Your task to perform on an android device: Open internet settings Image 0: 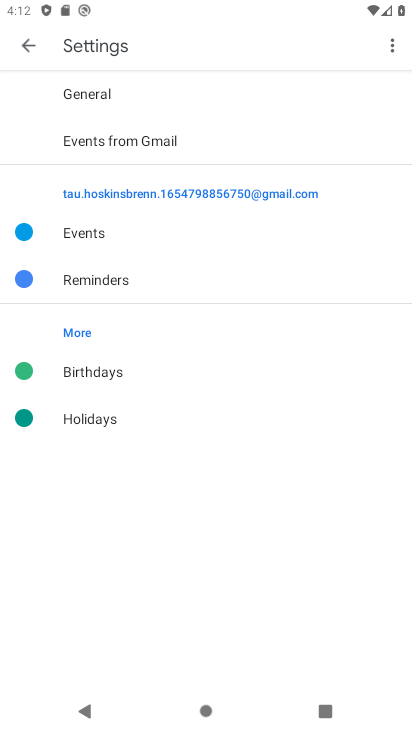
Step 0: drag from (249, 629) to (270, 160)
Your task to perform on an android device: Open internet settings Image 1: 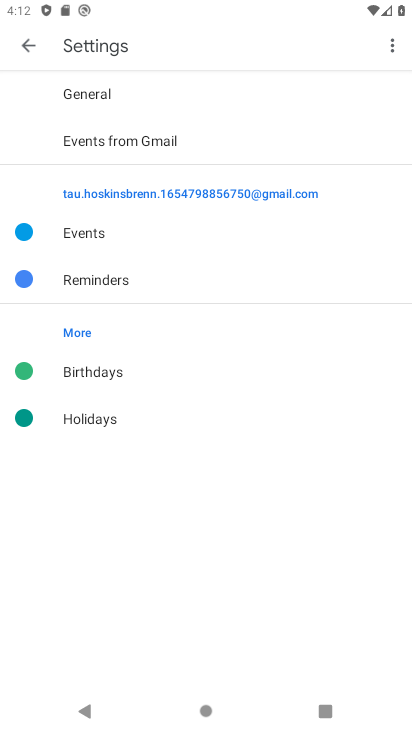
Step 1: click (18, 59)
Your task to perform on an android device: Open internet settings Image 2: 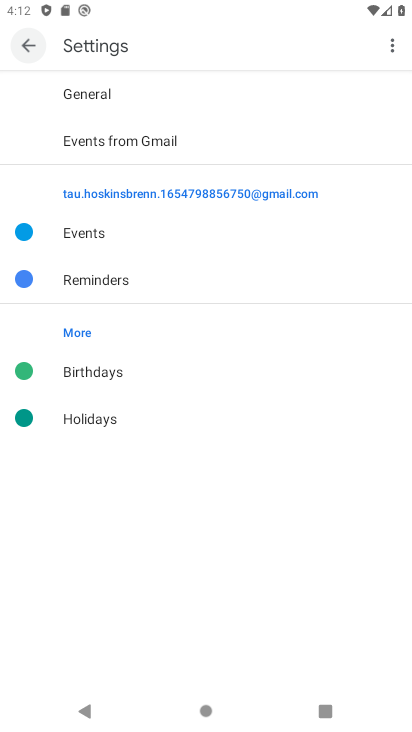
Step 2: click (29, 45)
Your task to perform on an android device: Open internet settings Image 3: 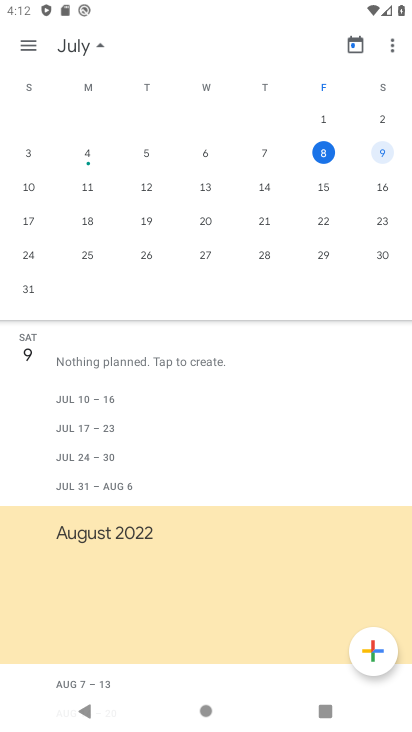
Step 3: press back button
Your task to perform on an android device: Open internet settings Image 4: 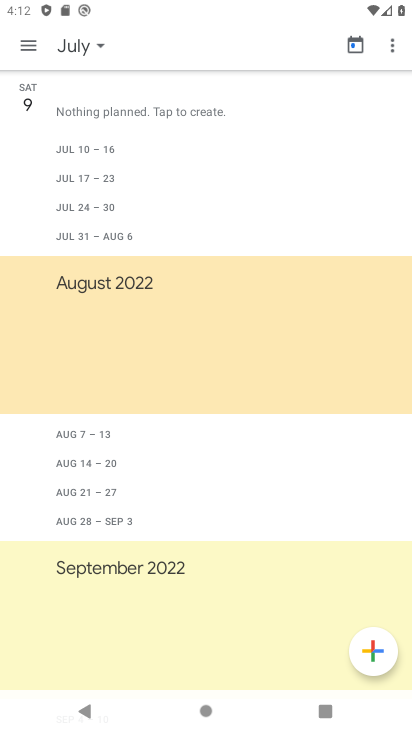
Step 4: press home button
Your task to perform on an android device: Open internet settings Image 5: 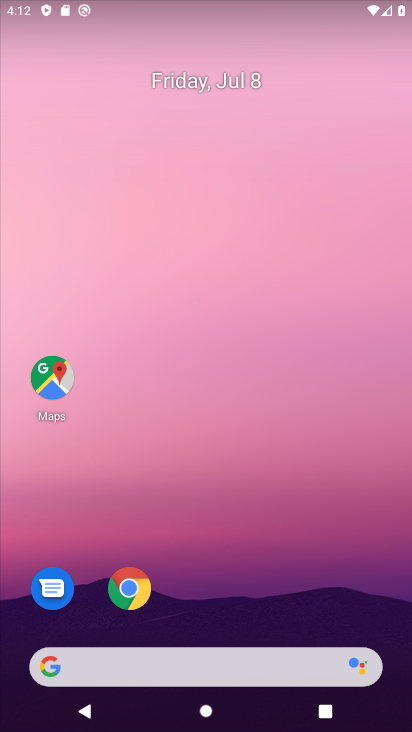
Step 5: drag from (208, 688) to (107, 89)
Your task to perform on an android device: Open internet settings Image 6: 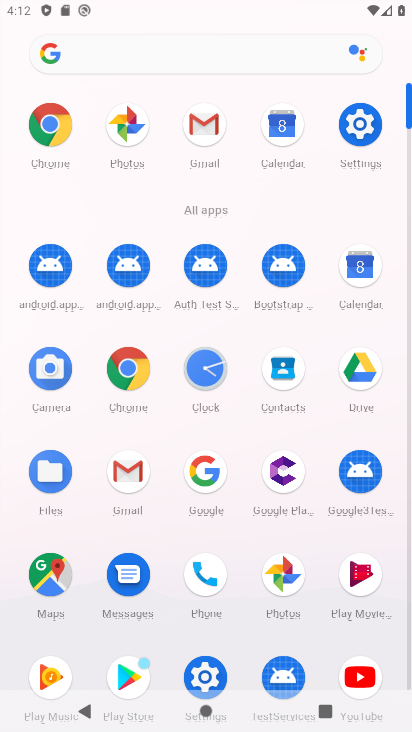
Step 6: click (349, 136)
Your task to perform on an android device: Open internet settings Image 7: 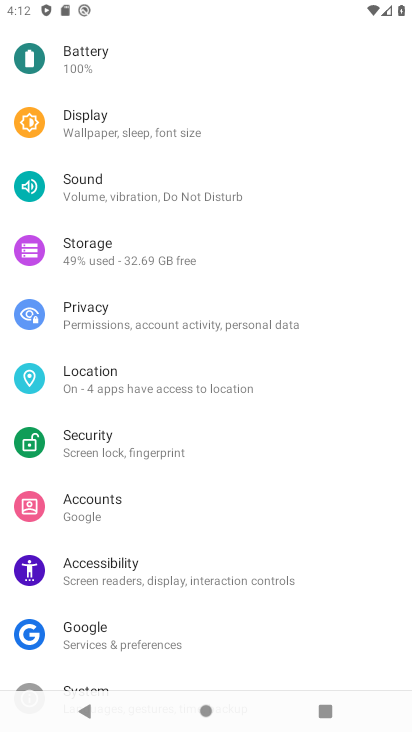
Step 7: click (69, 553)
Your task to perform on an android device: Open internet settings Image 8: 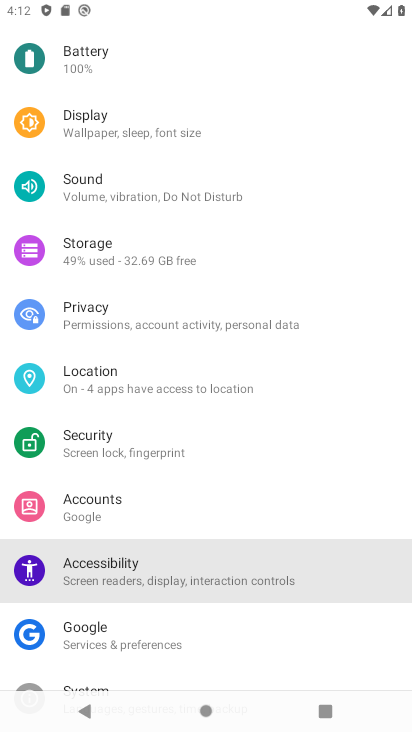
Step 8: drag from (79, 161) to (170, 557)
Your task to perform on an android device: Open internet settings Image 9: 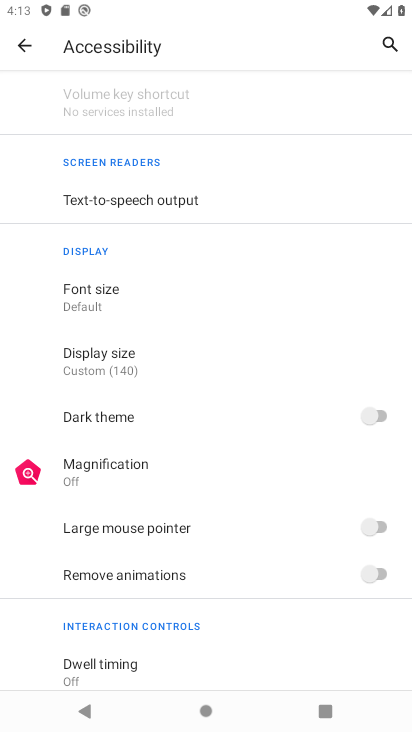
Step 9: click (18, 42)
Your task to perform on an android device: Open internet settings Image 10: 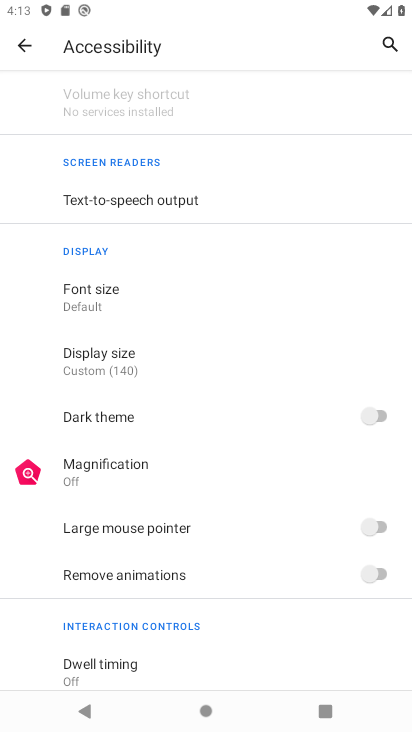
Step 10: click (21, 45)
Your task to perform on an android device: Open internet settings Image 11: 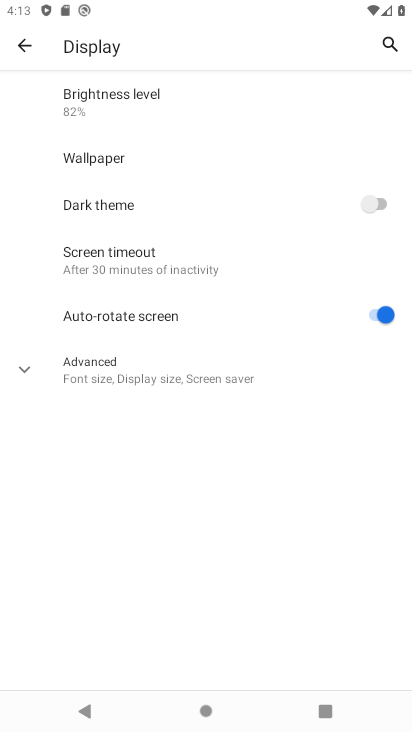
Step 11: click (31, 51)
Your task to perform on an android device: Open internet settings Image 12: 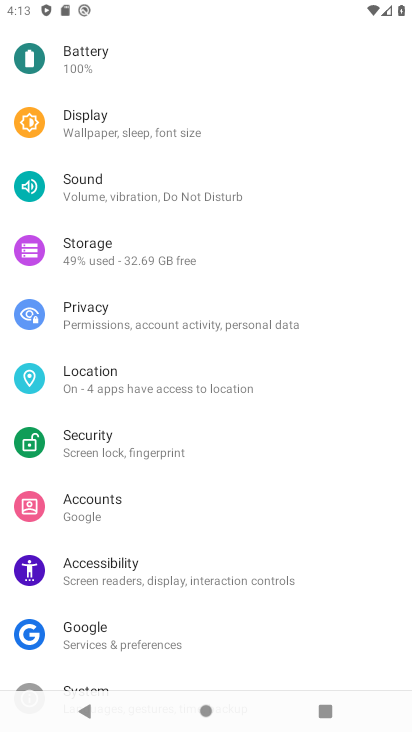
Step 12: drag from (119, 92) to (120, 488)
Your task to perform on an android device: Open internet settings Image 13: 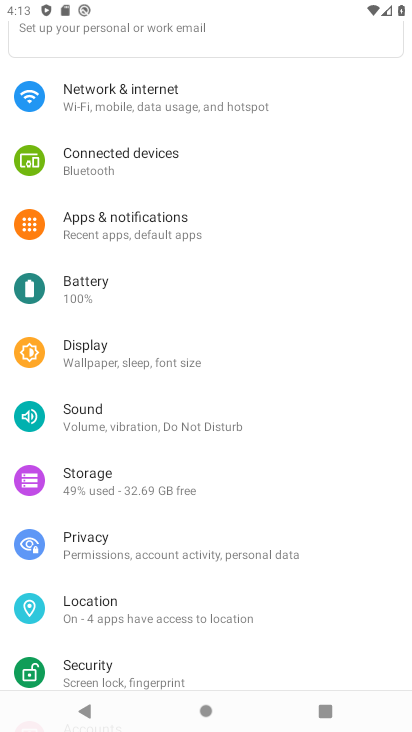
Step 13: click (126, 99)
Your task to perform on an android device: Open internet settings Image 14: 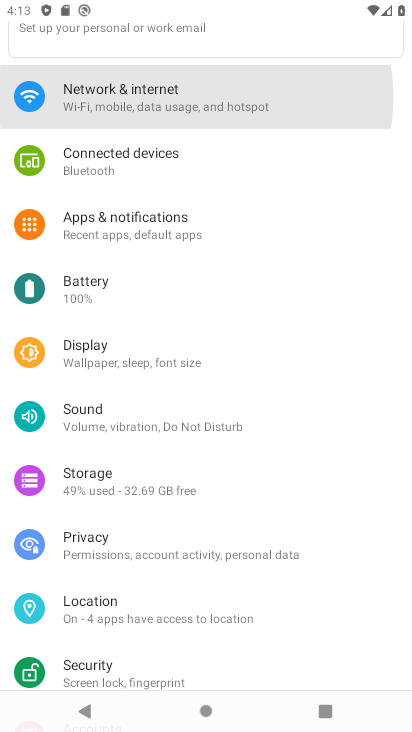
Step 14: click (138, 99)
Your task to perform on an android device: Open internet settings Image 15: 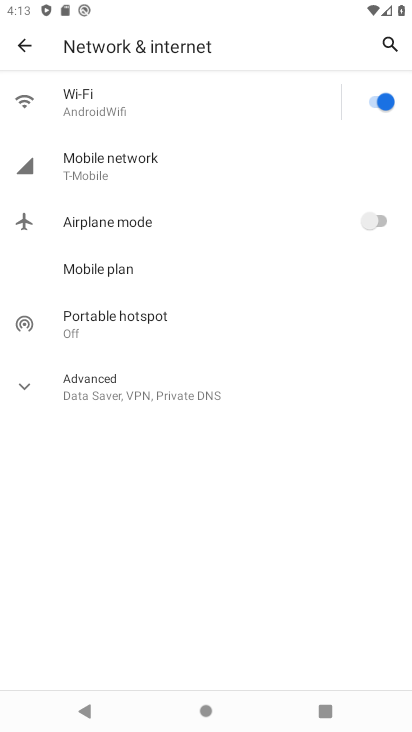
Step 15: click (141, 105)
Your task to perform on an android device: Open internet settings Image 16: 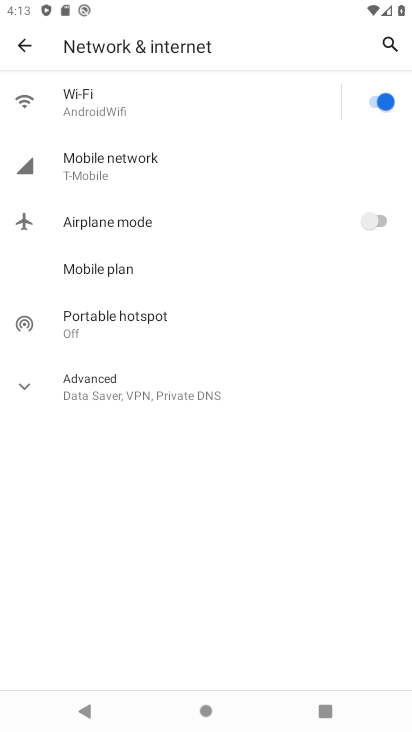
Step 16: click (142, 105)
Your task to perform on an android device: Open internet settings Image 17: 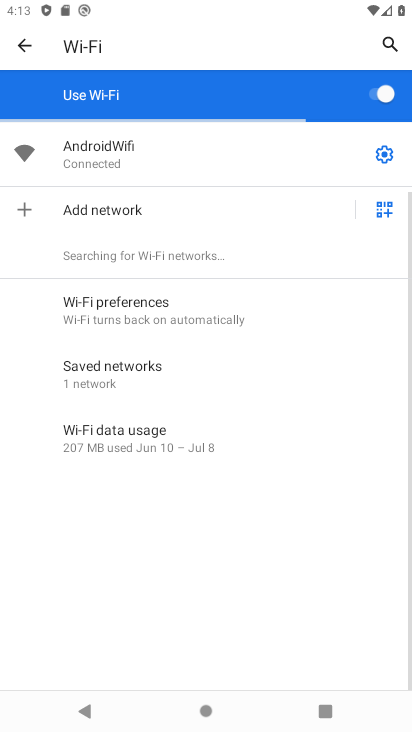
Step 17: task complete